Your task to perform on an android device: search for starred emails in the gmail app Image 0: 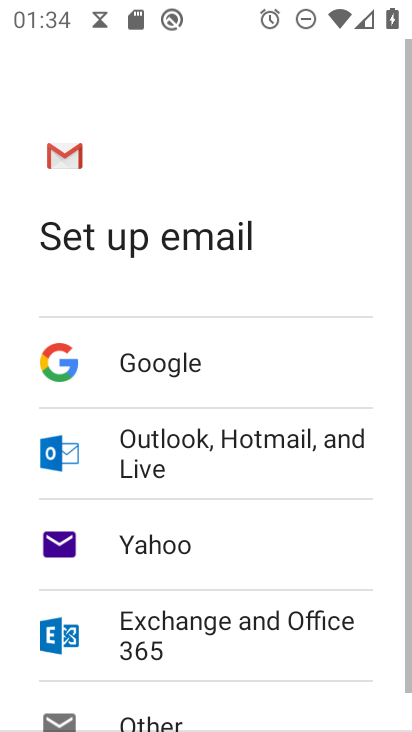
Step 0: press home button
Your task to perform on an android device: search for starred emails in the gmail app Image 1: 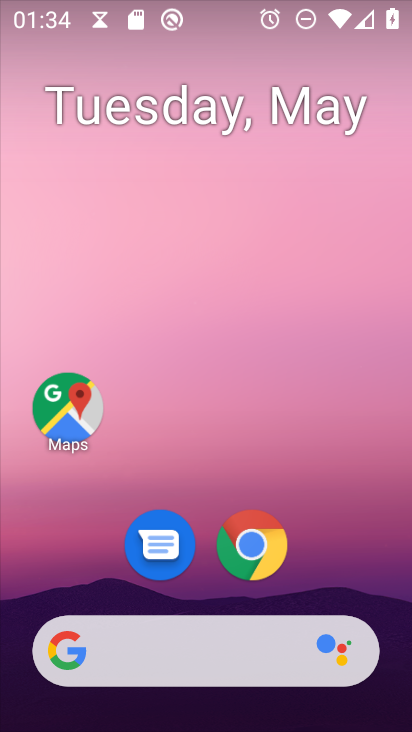
Step 1: drag from (333, 573) to (409, 53)
Your task to perform on an android device: search for starred emails in the gmail app Image 2: 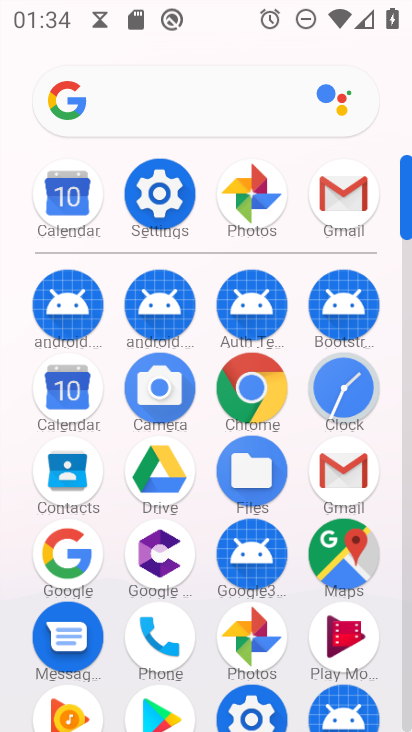
Step 2: click (336, 196)
Your task to perform on an android device: search for starred emails in the gmail app Image 3: 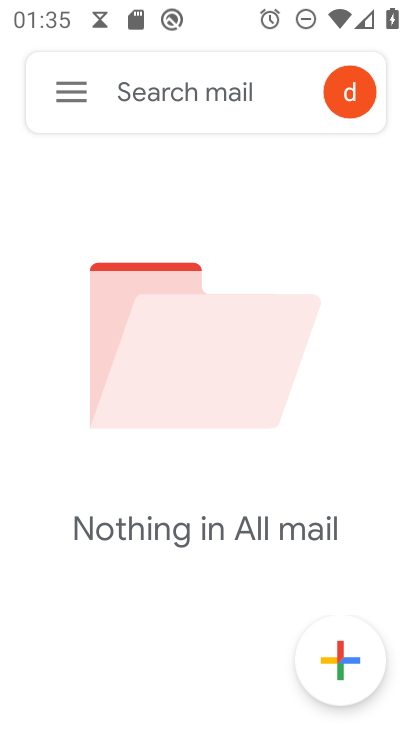
Step 3: click (57, 92)
Your task to perform on an android device: search for starred emails in the gmail app Image 4: 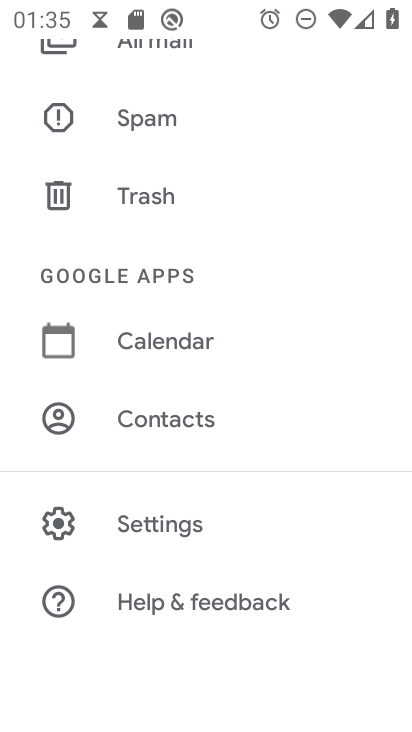
Step 4: drag from (110, 139) to (112, 348)
Your task to perform on an android device: search for starred emails in the gmail app Image 5: 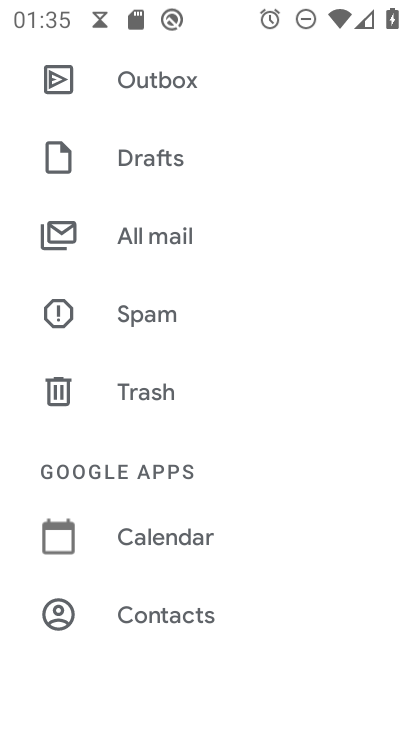
Step 5: drag from (160, 123) to (190, 517)
Your task to perform on an android device: search for starred emails in the gmail app Image 6: 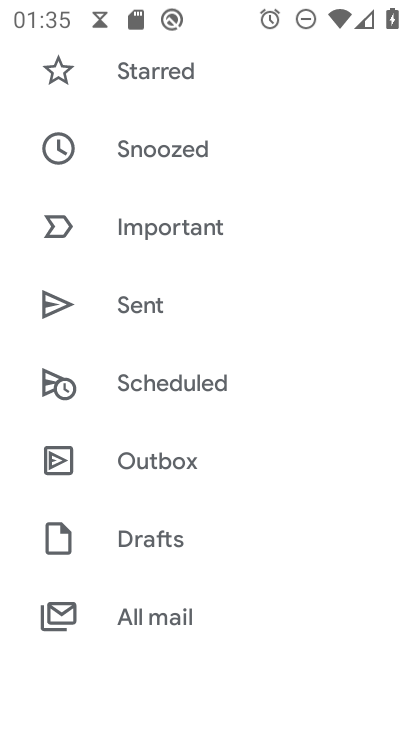
Step 6: drag from (176, 222) to (272, 466)
Your task to perform on an android device: search for starred emails in the gmail app Image 7: 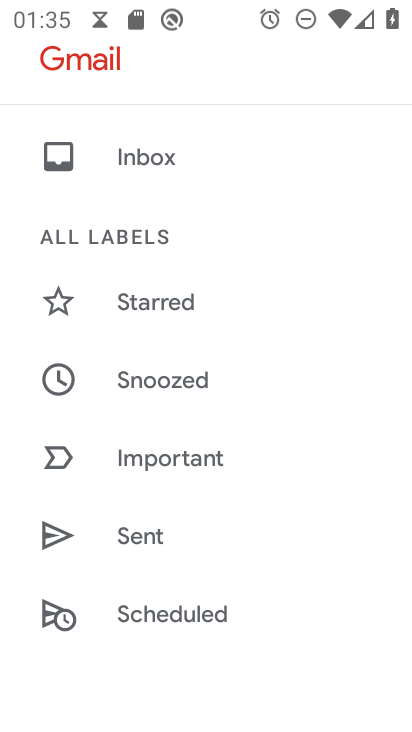
Step 7: click (188, 291)
Your task to perform on an android device: search for starred emails in the gmail app Image 8: 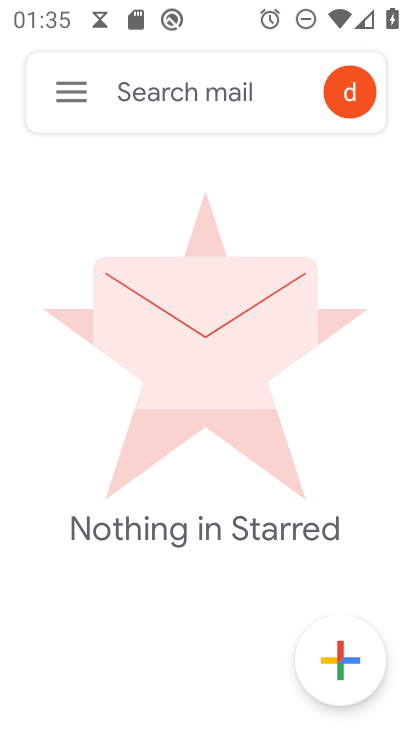
Step 8: task complete